Your task to perform on an android device: Open the web browser Image 0: 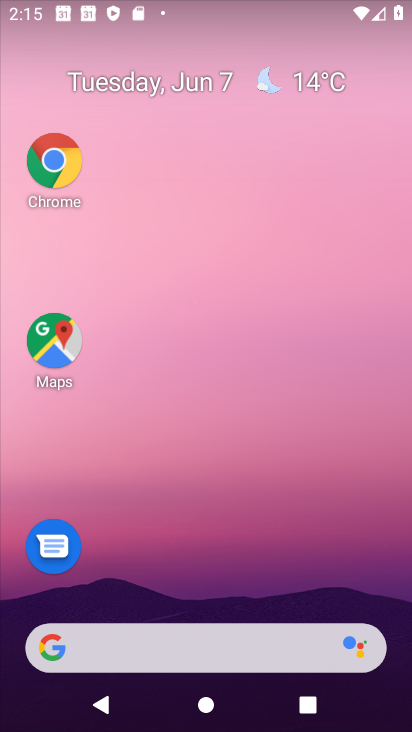
Step 0: drag from (186, 233) to (212, 80)
Your task to perform on an android device: Open the web browser Image 1: 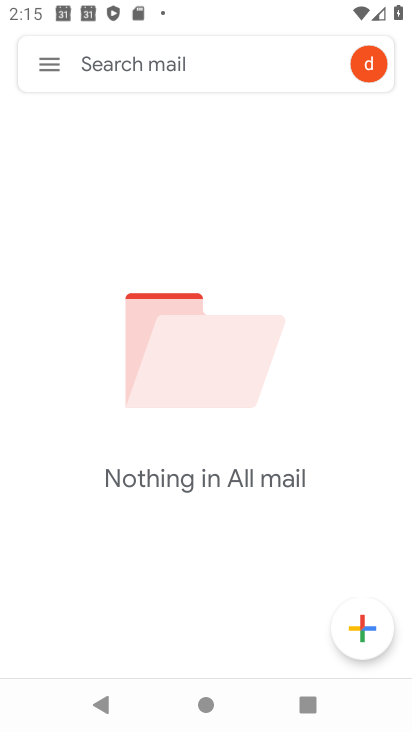
Step 1: press home button
Your task to perform on an android device: Open the web browser Image 2: 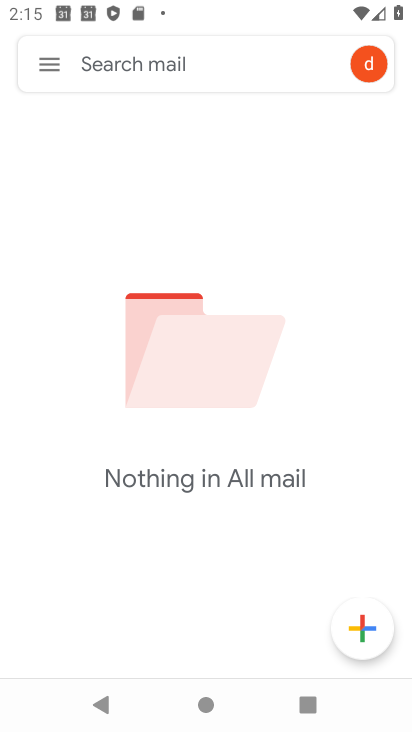
Step 2: press home button
Your task to perform on an android device: Open the web browser Image 3: 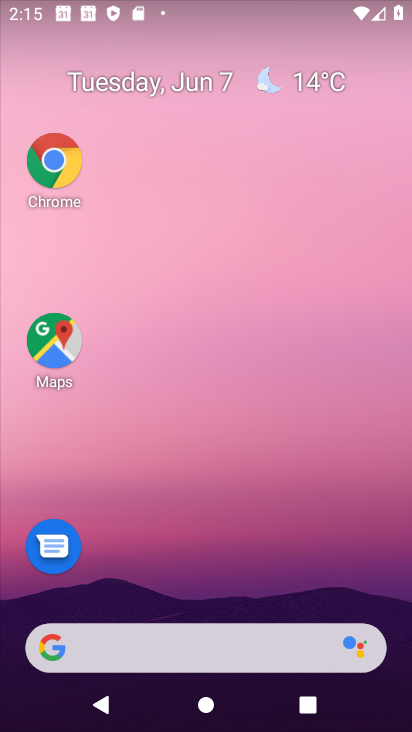
Step 3: drag from (212, 586) to (201, 269)
Your task to perform on an android device: Open the web browser Image 4: 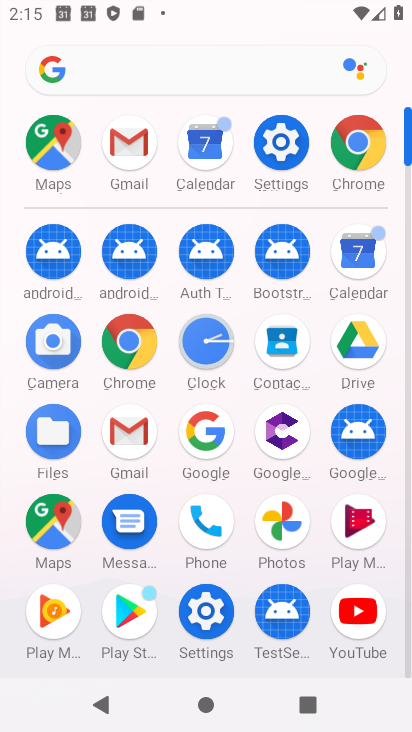
Step 4: click (348, 145)
Your task to perform on an android device: Open the web browser Image 5: 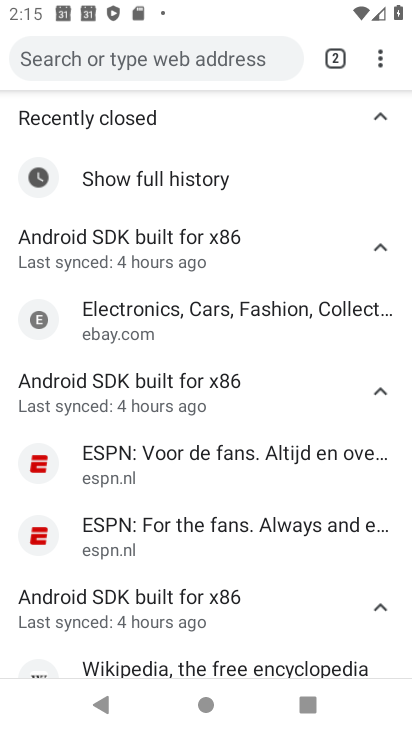
Step 5: task complete